Your task to perform on an android device: turn on improve location accuracy Image 0: 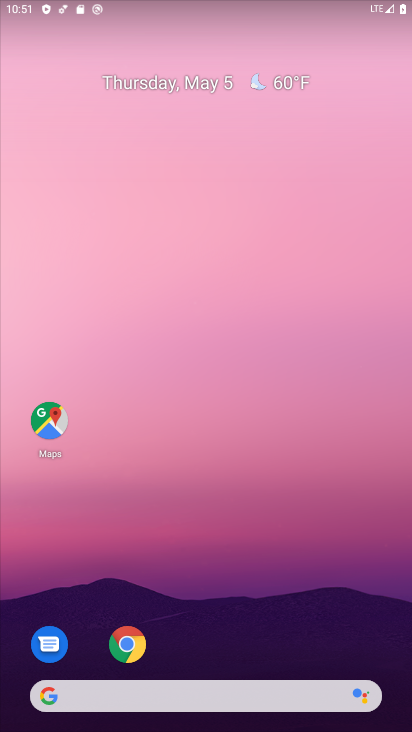
Step 0: drag from (321, 636) to (281, 275)
Your task to perform on an android device: turn on improve location accuracy Image 1: 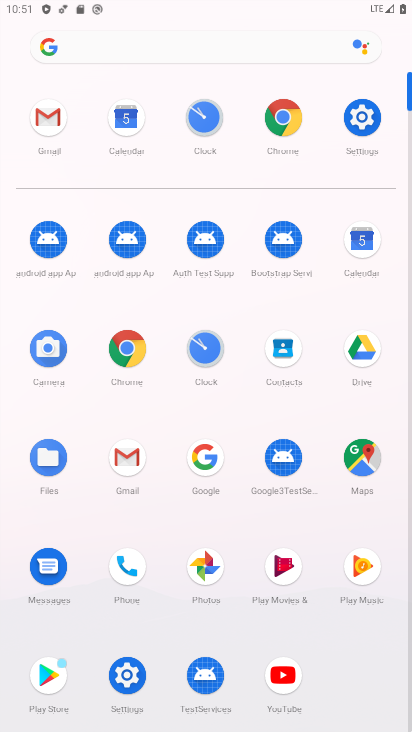
Step 1: click (356, 126)
Your task to perform on an android device: turn on improve location accuracy Image 2: 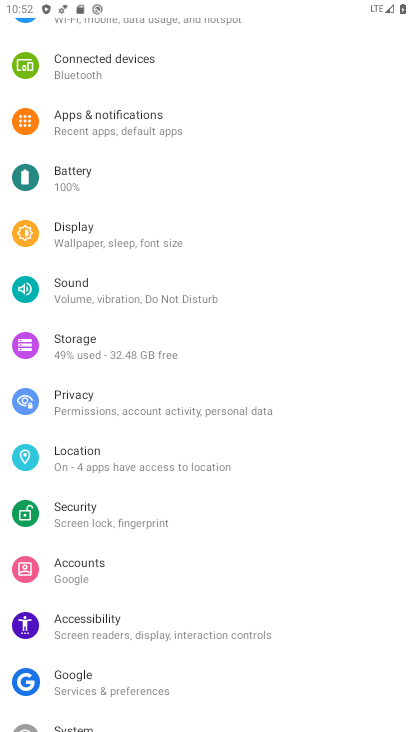
Step 2: click (143, 470)
Your task to perform on an android device: turn on improve location accuracy Image 3: 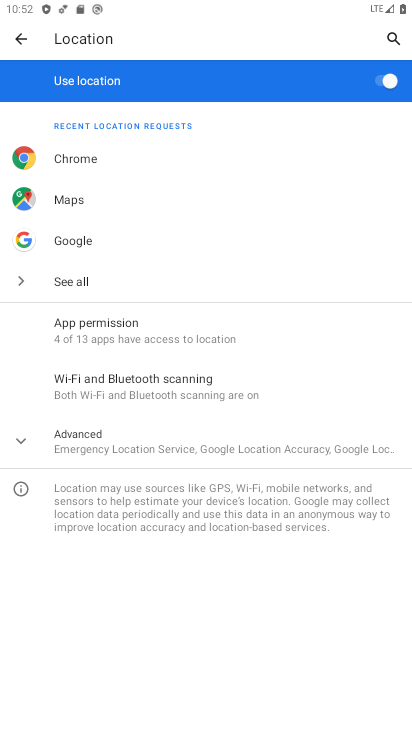
Step 3: click (155, 451)
Your task to perform on an android device: turn on improve location accuracy Image 4: 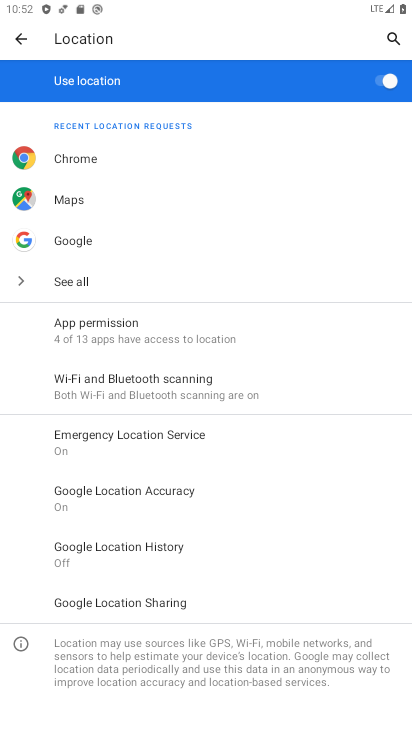
Step 4: click (167, 489)
Your task to perform on an android device: turn on improve location accuracy Image 5: 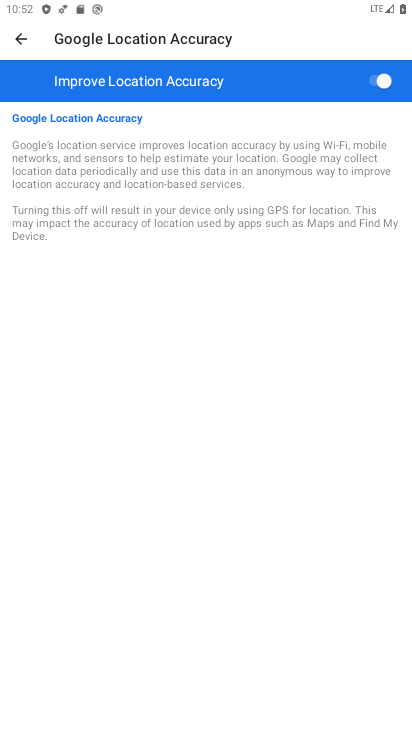
Step 5: task complete